Your task to perform on an android device: Check the weather Image 0: 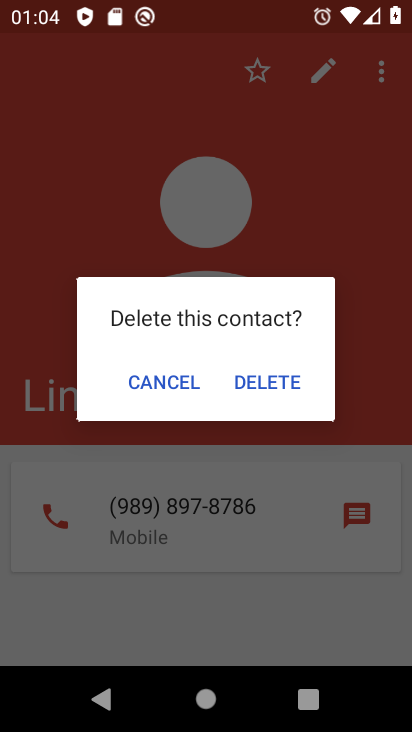
Step 0: press home button
Your task to perform on an android device: Check the weather Image 1: 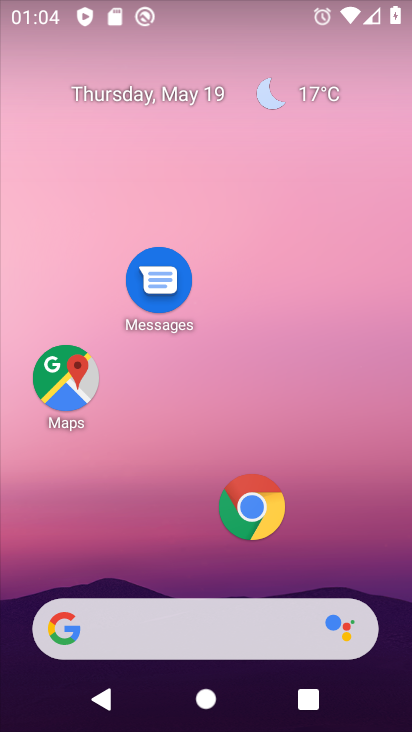
Step 1: drag from (152, 590) to (152, 95)
Your task to perform on an android device: Check the weather Image 2: 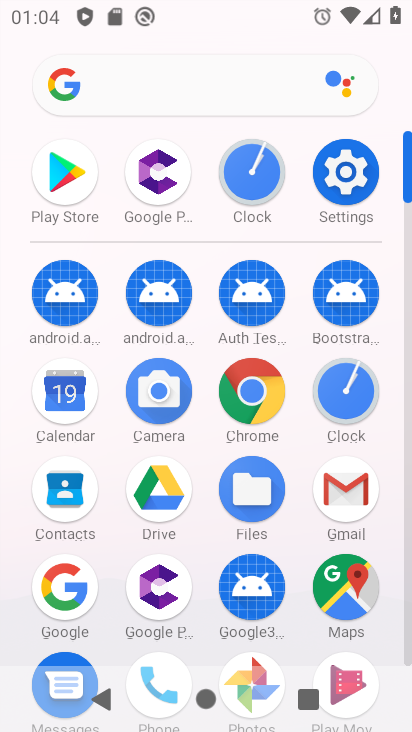
Step 2: click (59, 581)
Your task to perform on an android device: Check the weather Image 3: 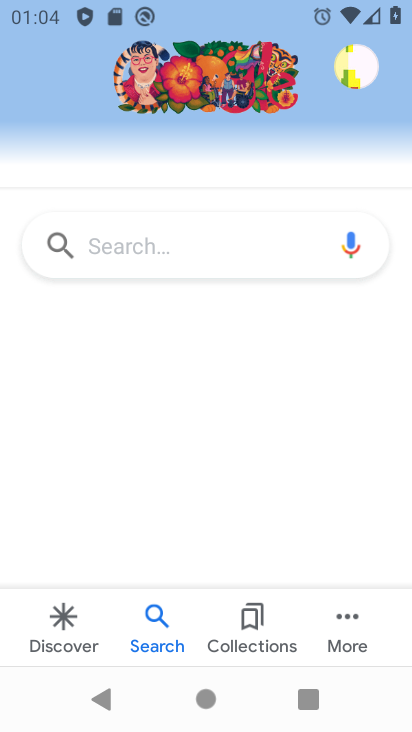
Step 3: click (159, 238)
Your task to perform on an android device: Check the weather Image 4: 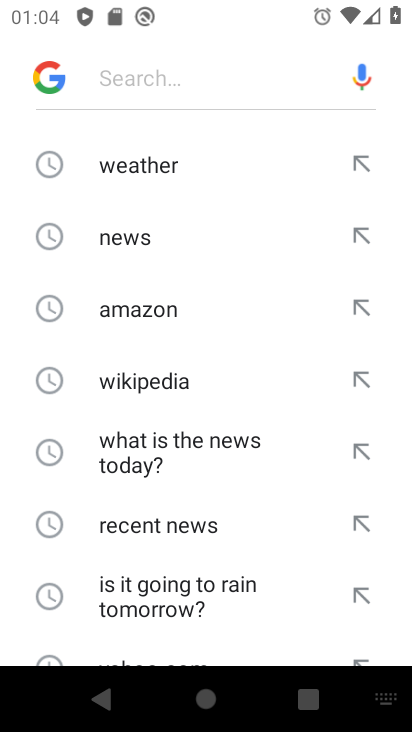
Step 4: click (161, 183)
Your task to perform on an android device: Check the weather Image 5: 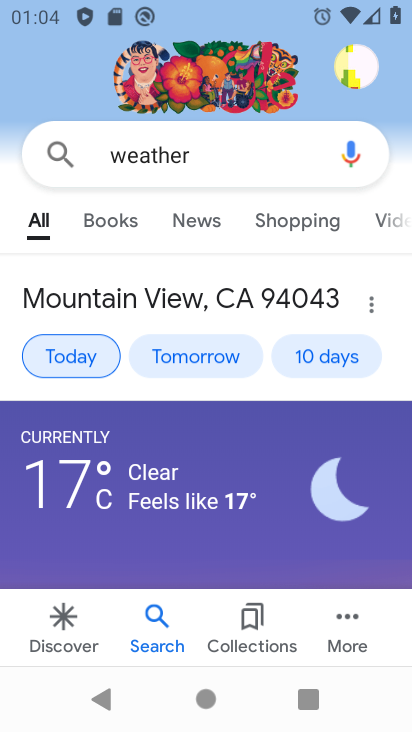
Step 5: task complete